Your task to perform on an android device: Go to ESPN.com Image 0: 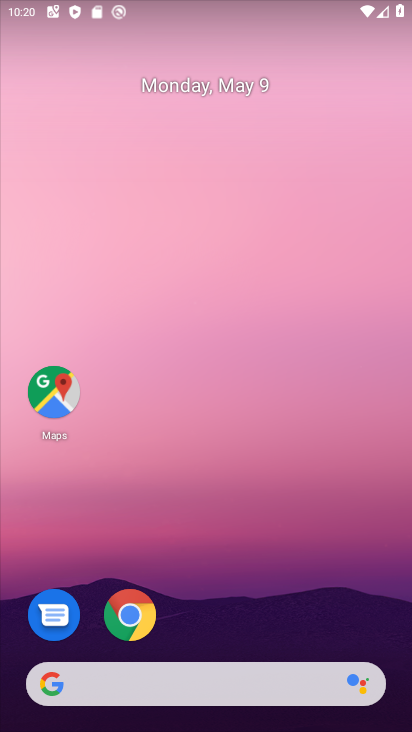
Step 0: click (129, 615)
Your task to perform on an android device: Go to ESPN.com Image 1: 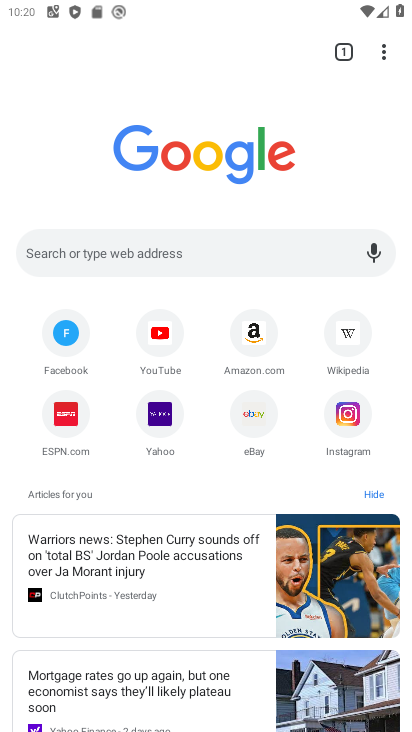
Step 1: click (79, 255)
Your task to perform on an android device: Go to ESPN.com Image 2: 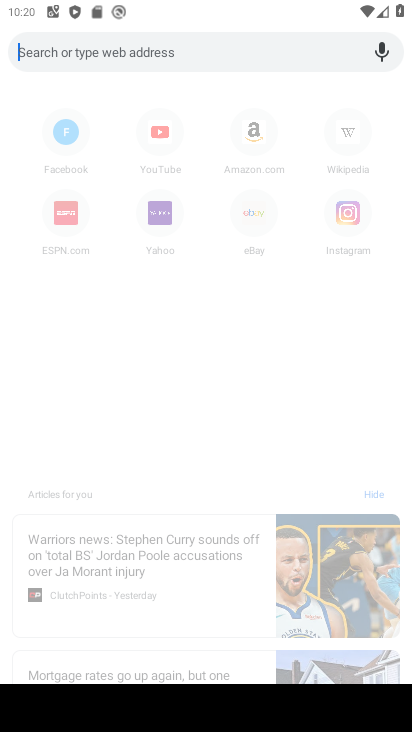
Step 2: type "ESPN.com"
Your task to perform on an android device: Go to ESPN.com Image 3: 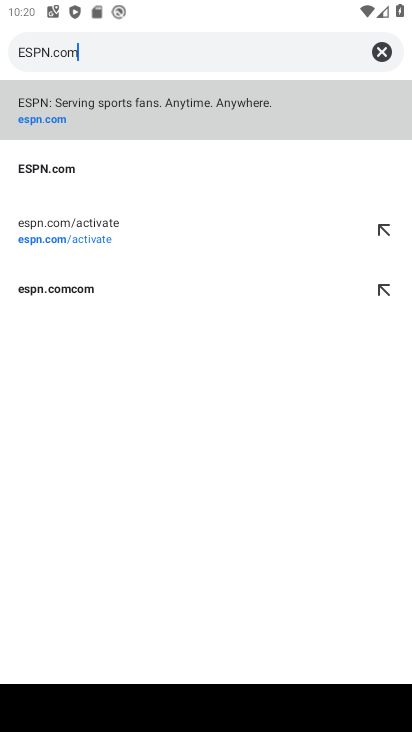
Step 3: click (64, 172)
Your task to perform on an android device: Go to ESPN.com Image 4: 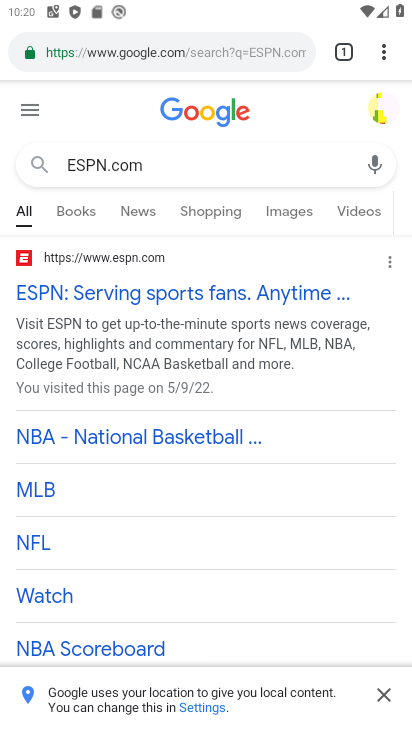
Step 4: task complete